Your task to perform on an android device: Search for "usb-a to usb-b" on target.com, select the first entry, and add it to the cart. Image 0: 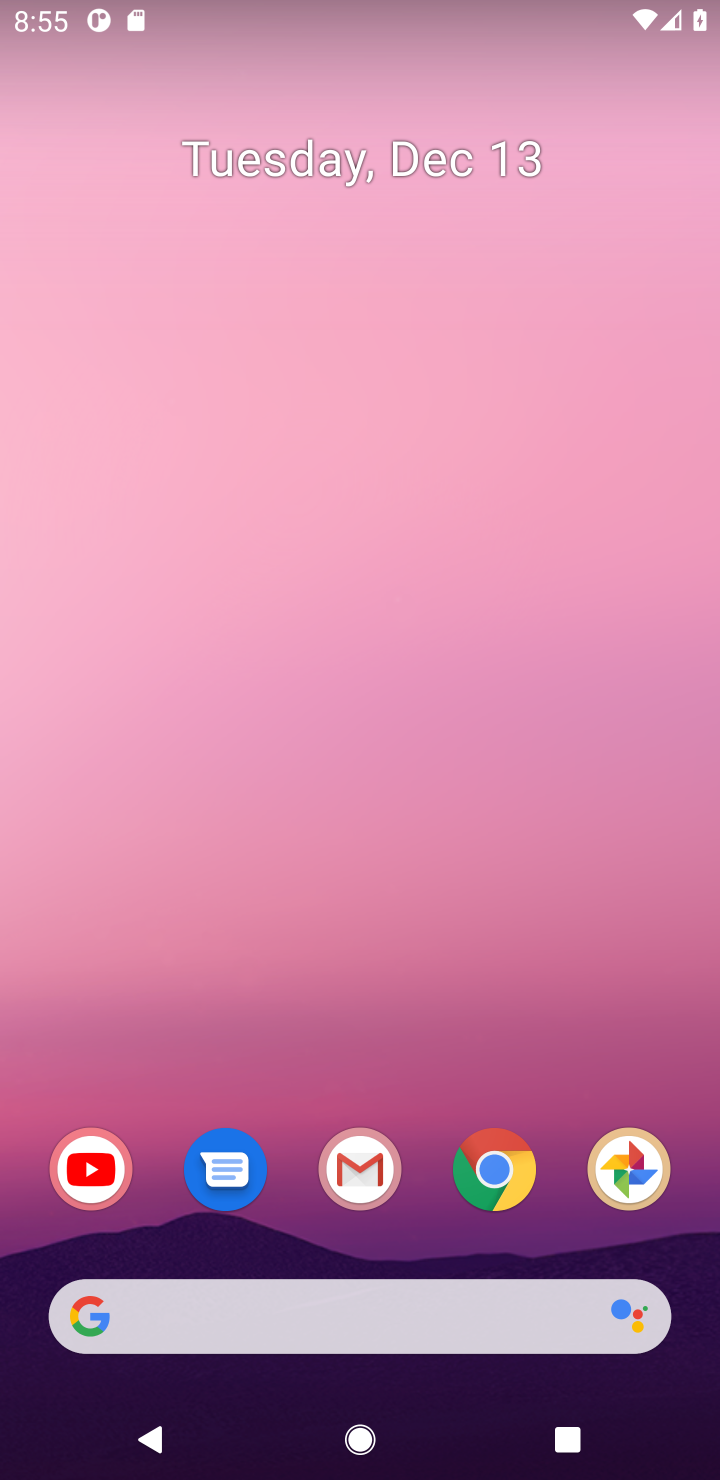
Step 0: click (486, 1151)
Your task to perform on an android device: Search for "usb-a to usb-b" on target.com, select the first entry, and add it to the cart. Image 1: 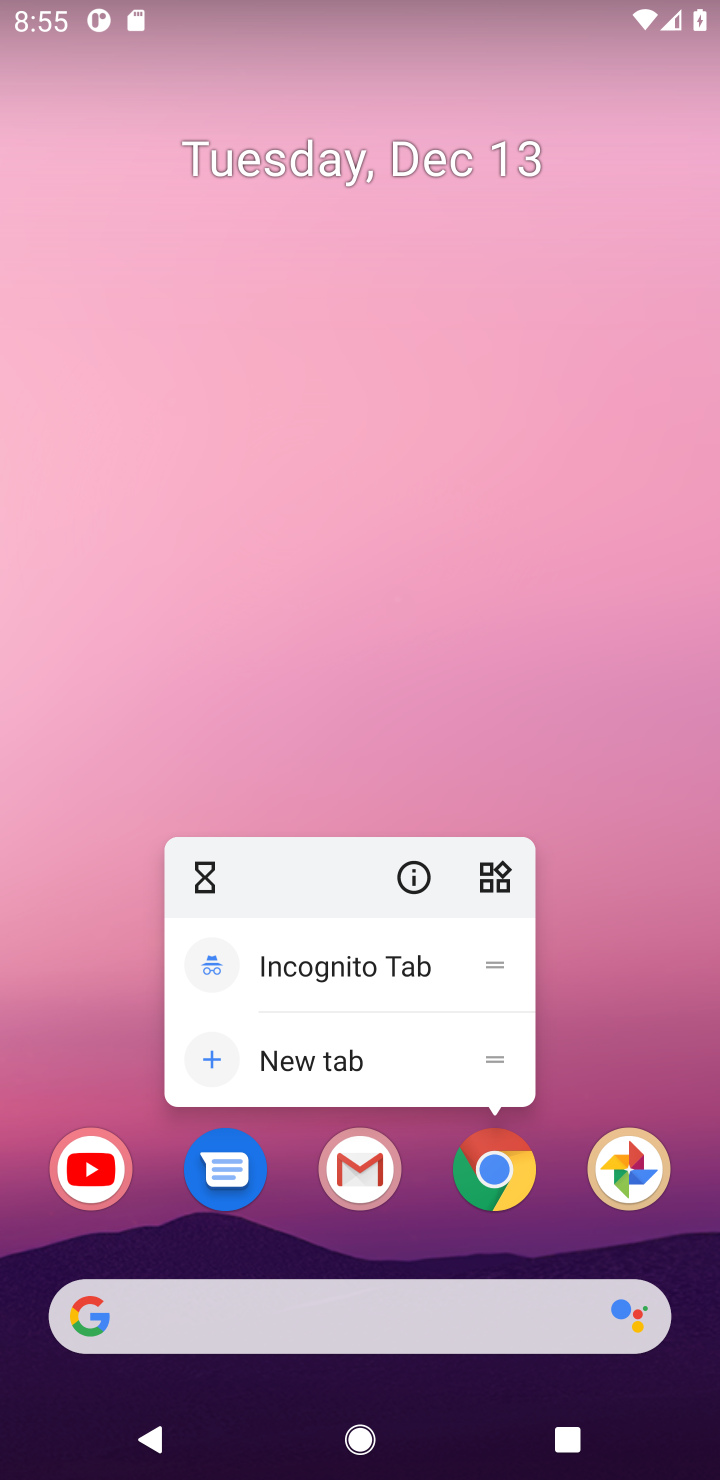
Step 1: click (512, 1179)
Your task to perform on an android device: Search for "usb-a to usb-b" on target.com, select the first entry, and add it to the cart. Image 2: 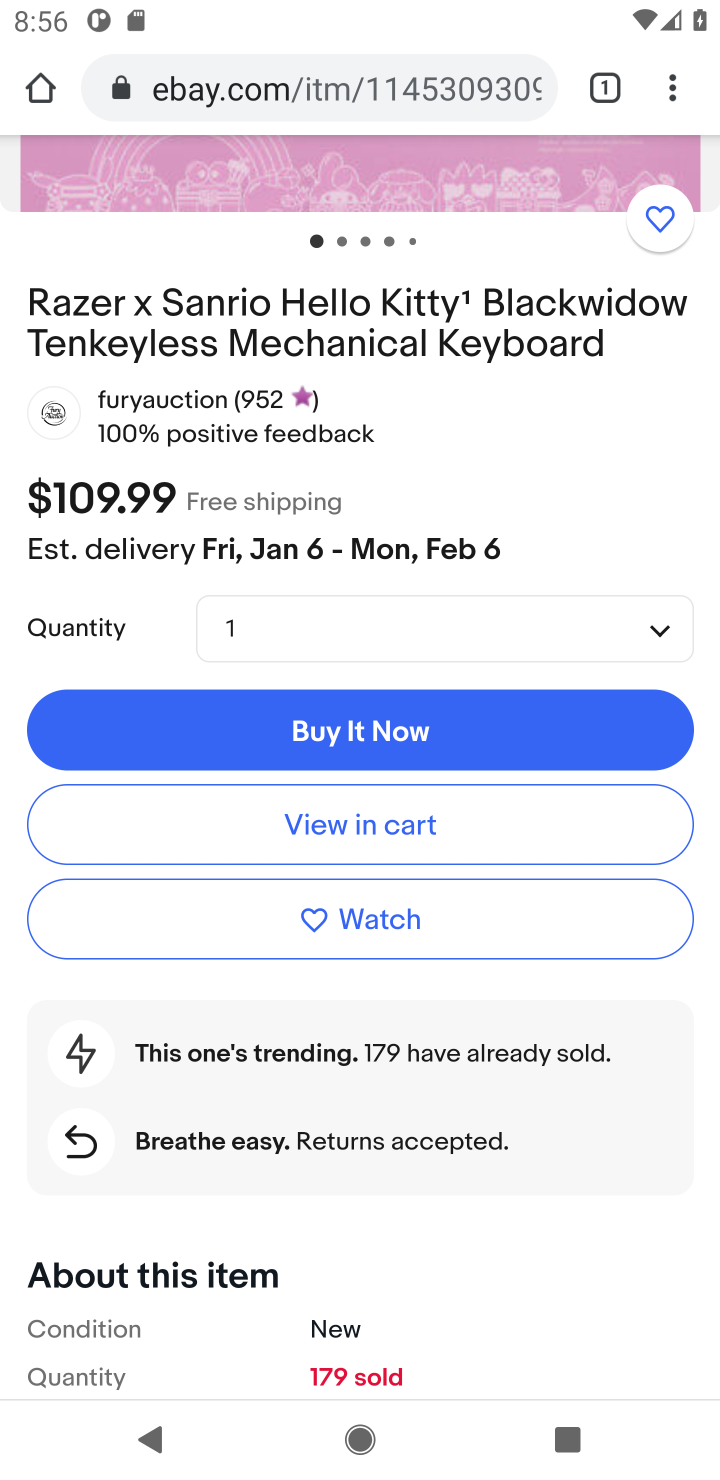
Step 2: task complete